Your task to perform on an android device: allow cookies in the chrome app Image 0: 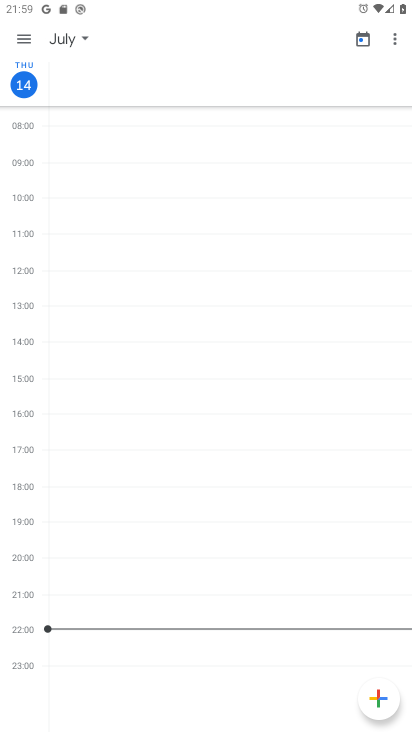
Step 0: press home button
Your task to perform on an android device: allow cookies in the chrome app Image 1: 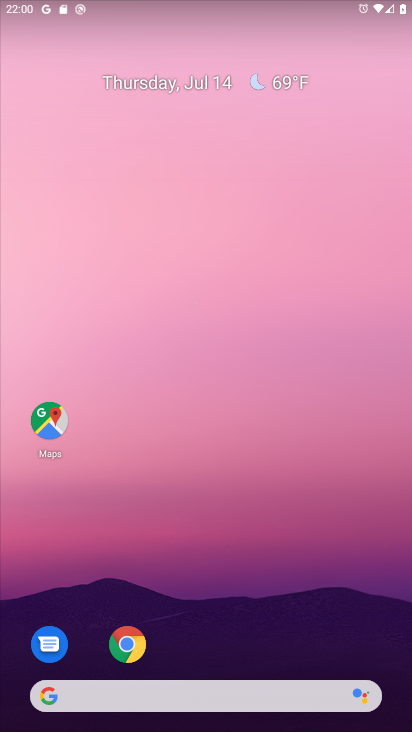
Step 1: click (132, 639)
Your task to perform on an android device: allow cookies in the chrome app Image 2: 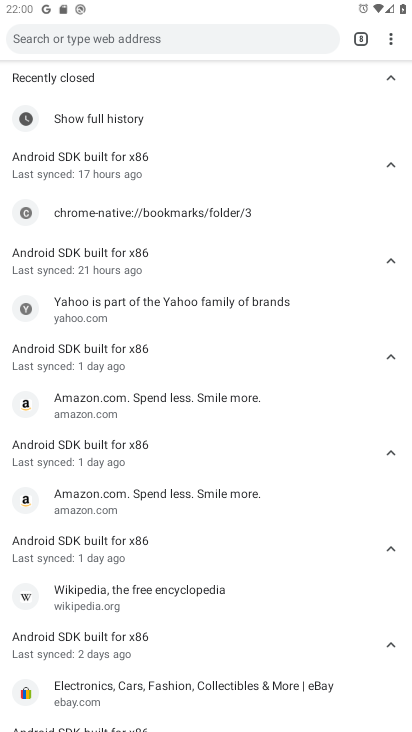
Step 2: click (387, 40)
Your task to perform on an android device: allow cookies in the chrome app Image 3: 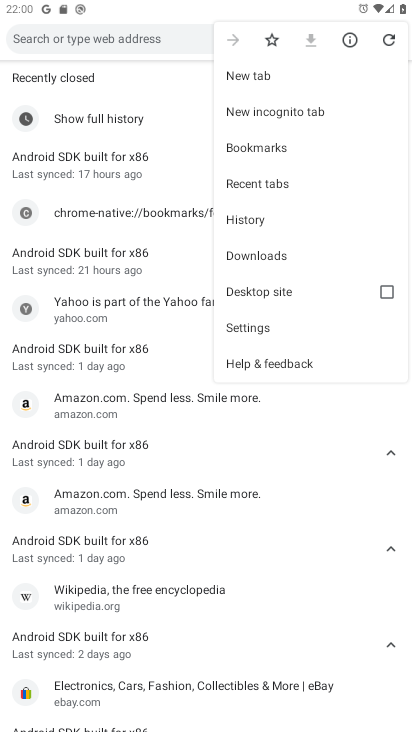
Step 3: click (271, 334)
Your task to perform on an android device: allow cookies in the chrome app Image 4: 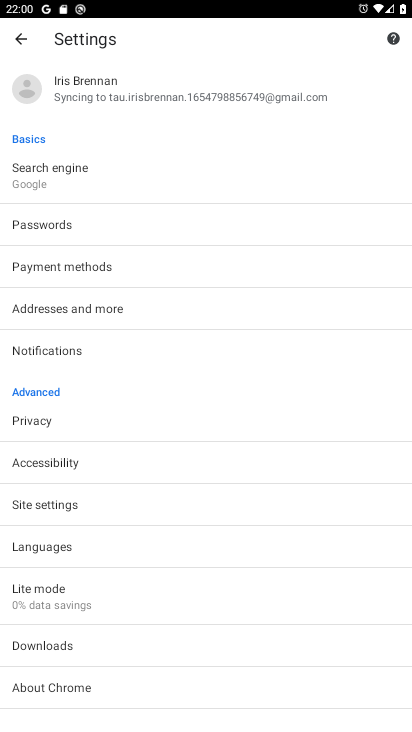
Step 4: click (86, 516)
Your task to perform on an android device: allow cookies in the chrome app Image 5: 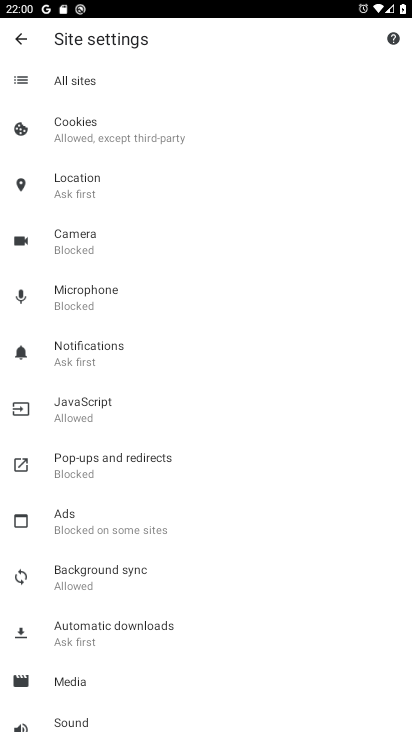
Step 5: click (223, 147)
Your task to perform on an android device: allow cookies in the chrome app Image 6: 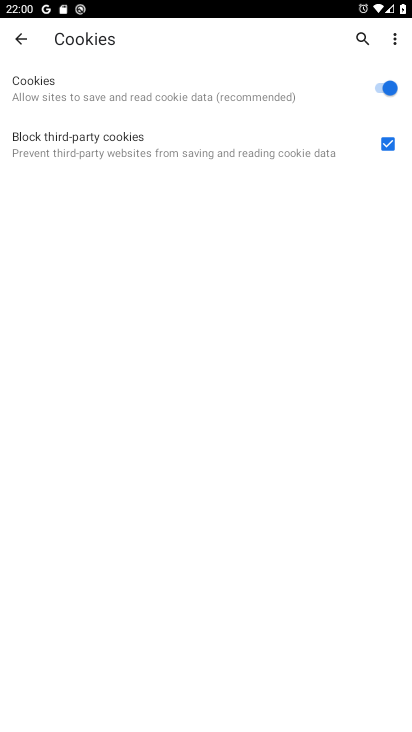
Step 6: task complete